Your task to perform on an android device: clear history in the chrome app Image 0: 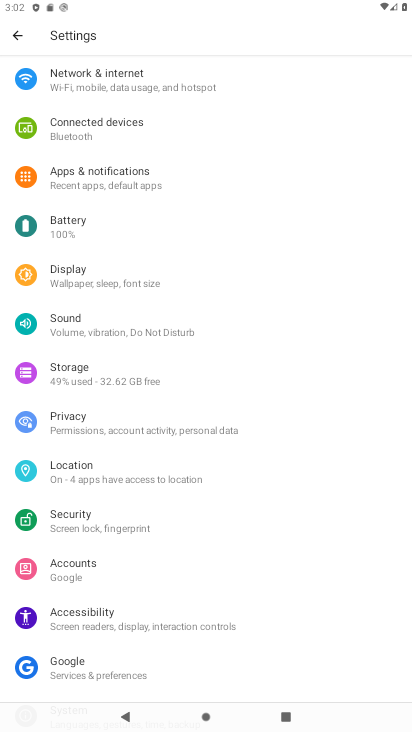
Step 0: press home button
Your task to perform on an android device: clear history in the chrome app Image 1: 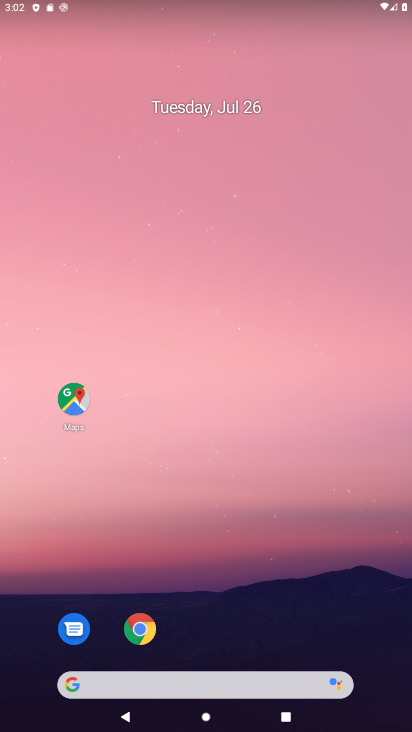
Step 1: click (149, 637)
Your task to perform on an android device: clear history in the chrome app Image 2: 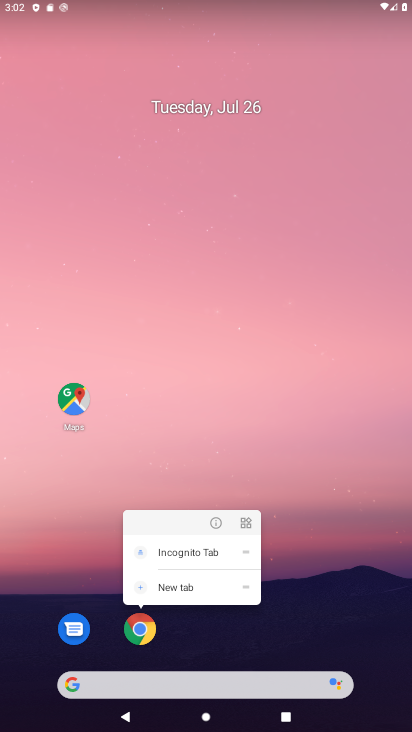
Step 2: click (149, 637)
Your task to perform on an android device: clear history in the chrome app Image 3: 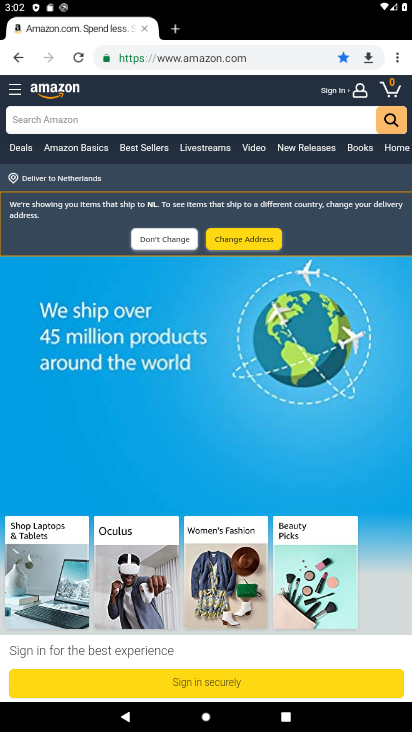
Step 3: drag from (392, 53) to (270, 177)
Your task to perform on an android device: clear history in the chrome app Image 4: 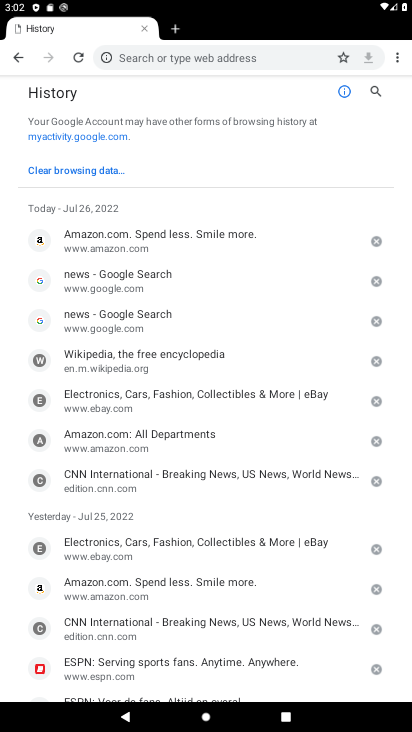
Step 4: click (56, 167)
Your task to perform on an android device: clear history in the chrome app Image 5: 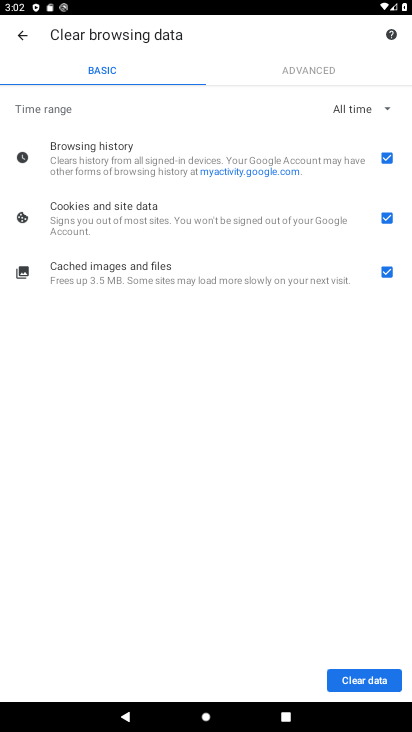
Step 5: click (379, 673)
Your task to perform on an android device: clear history in the chrome app Image 6: 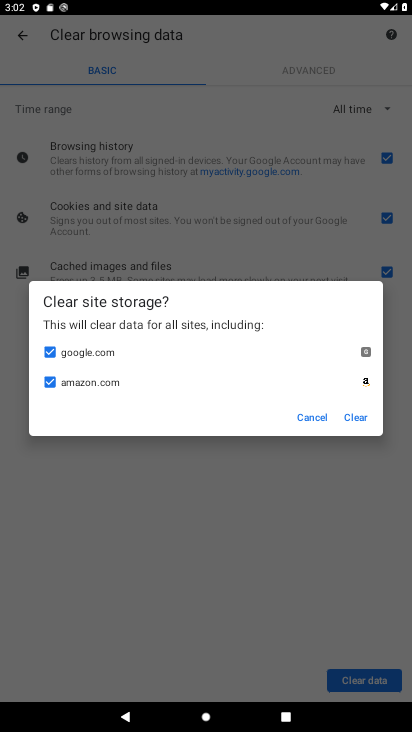
Step 6: click (346, 418)
Your task to perform on an android device: clear history in the chrome app Image 7: 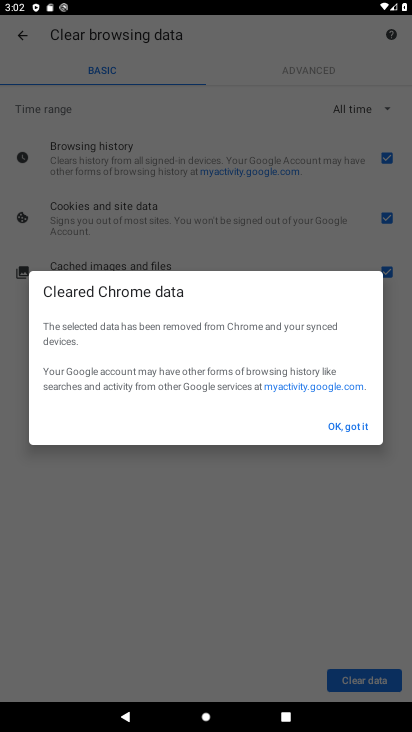
Step 7: click (330, 423)
Your task to perform on an android device: clear history in the chrome app Image 8: 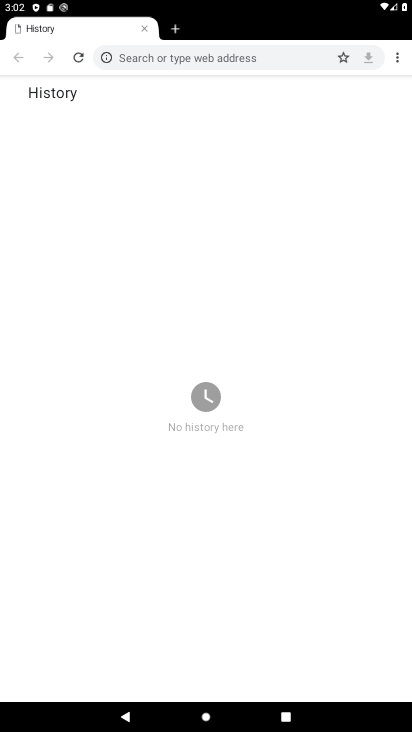
Step 8: task complete